Your task to perform on an android device: open app "Upside-Cash back on gas & food" Image 0: 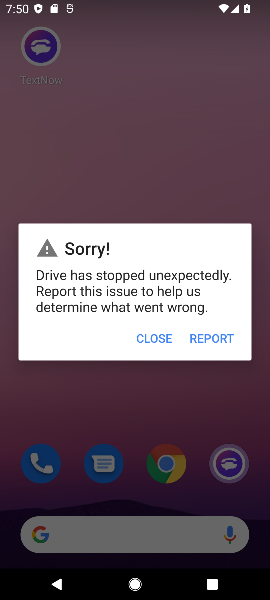
Step 0: click (152, 339)
Your task to perform on an android device: open app "Upside-Cash back on gas & food" Image 1: 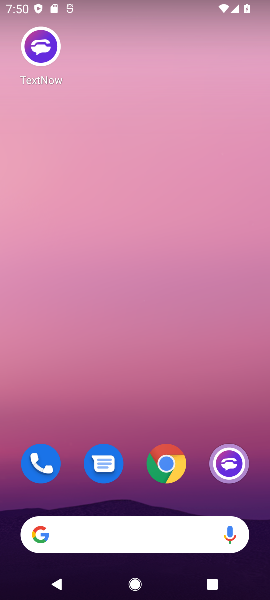
Step 1: drag from (137, 502) to (149, 104)
Your task to perform on an android device: open app "Upside-Cash back on gas & food" Image 2: 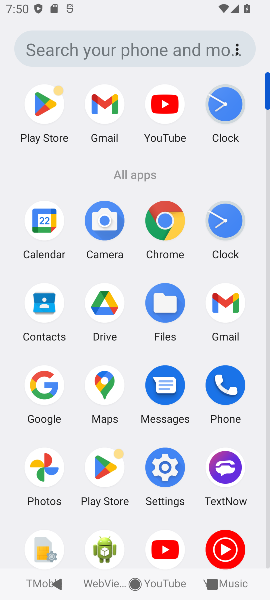
Step 2: click (102, 471)
Your task to perform on an android device: open app "Upside-Cash back on gas & food" Image 3: 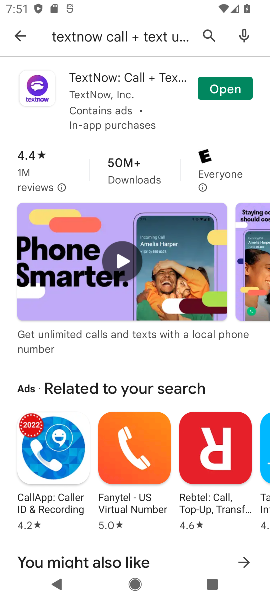
Step 3: click (22, 37)
Your task to perform on an android device: open app "Upside-Cash back on gas & food" Image 4: 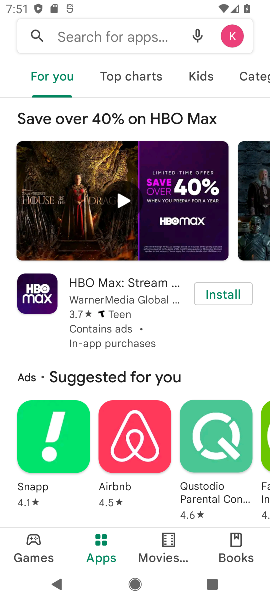
Step 4: click (83, 37)
Your task to perform on an android device: open app "Upside-Cash back on gas & food" Image 5: 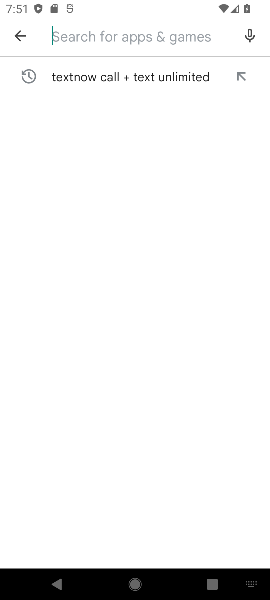
Step 5: type "Upside-Cash back on gas & food"
Your task to perform on an android device: open app "Upside-Cash back on gas & food" Image 6: 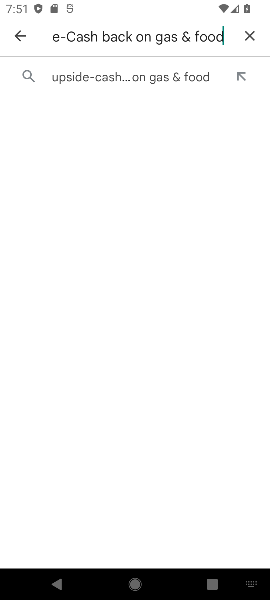
Step 6: click (103, 79)
Your task to perform on an android device: open app "Upside-Cash back on gas & food" Image 7: 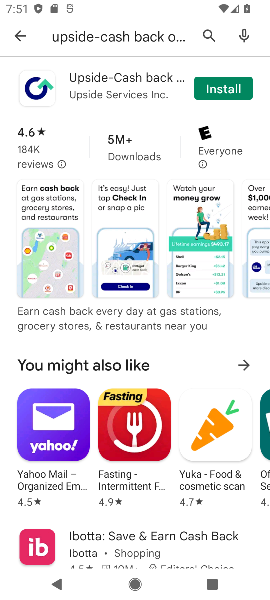
Step 7: click (217, 94)
Your task to perform on an android device: open app "Upside-Cash back on gas & food" Image 8: 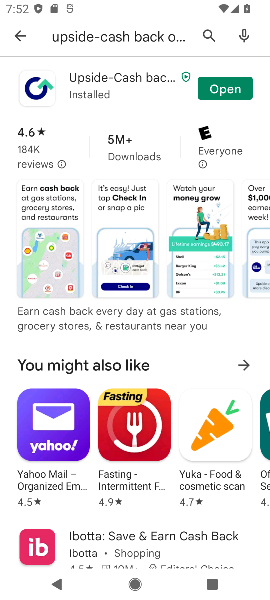
Step 8: click (217, 94)
Your task to perform on an android device: open app "Upside-Cash back on gas & food" Image 9: 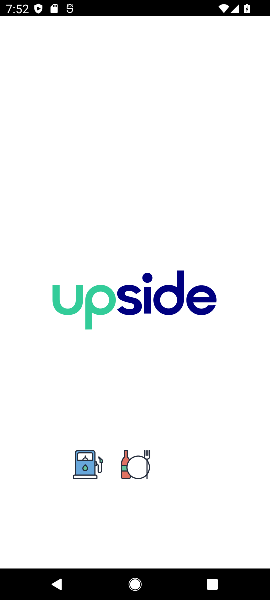
Step 9: task complete